Your task to perform on an android device: open app "LiveIn - Share Your Moment" Image 0: 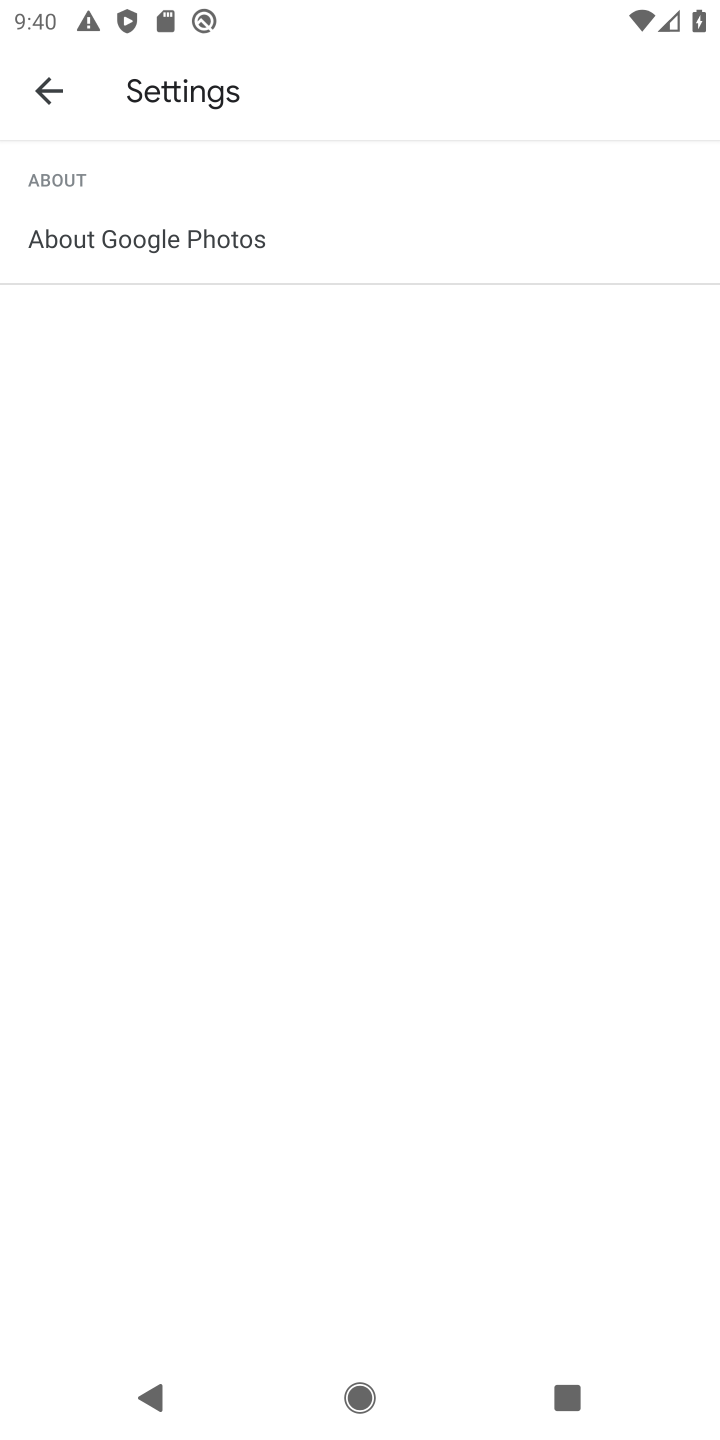
Step 0: press home button
Your task to perform on an android device: open app "LiveIn - Share Your Moment" Image 1: 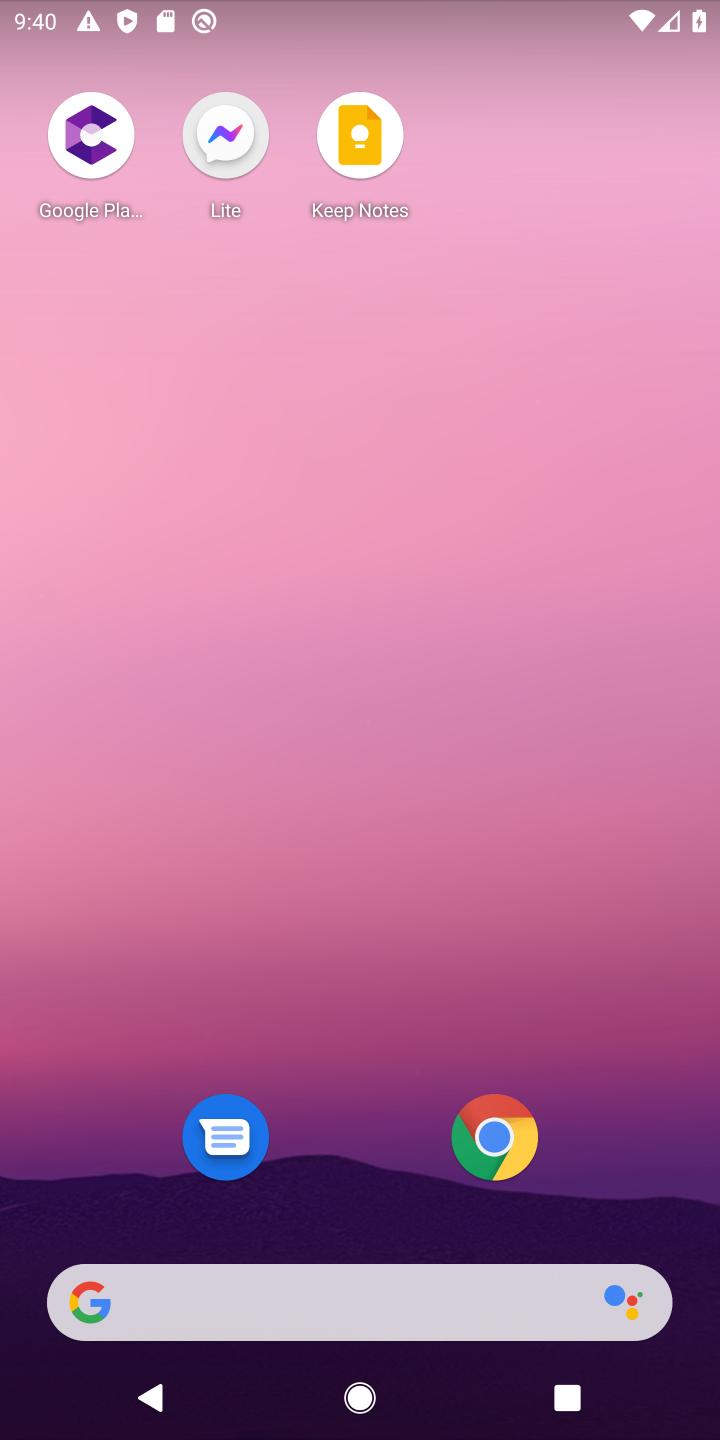
Step 1: drag from (605, 994) to (261, 88)
Your task to perform on an android device: open app "LiveIn - Share Your Moment" Image 2: 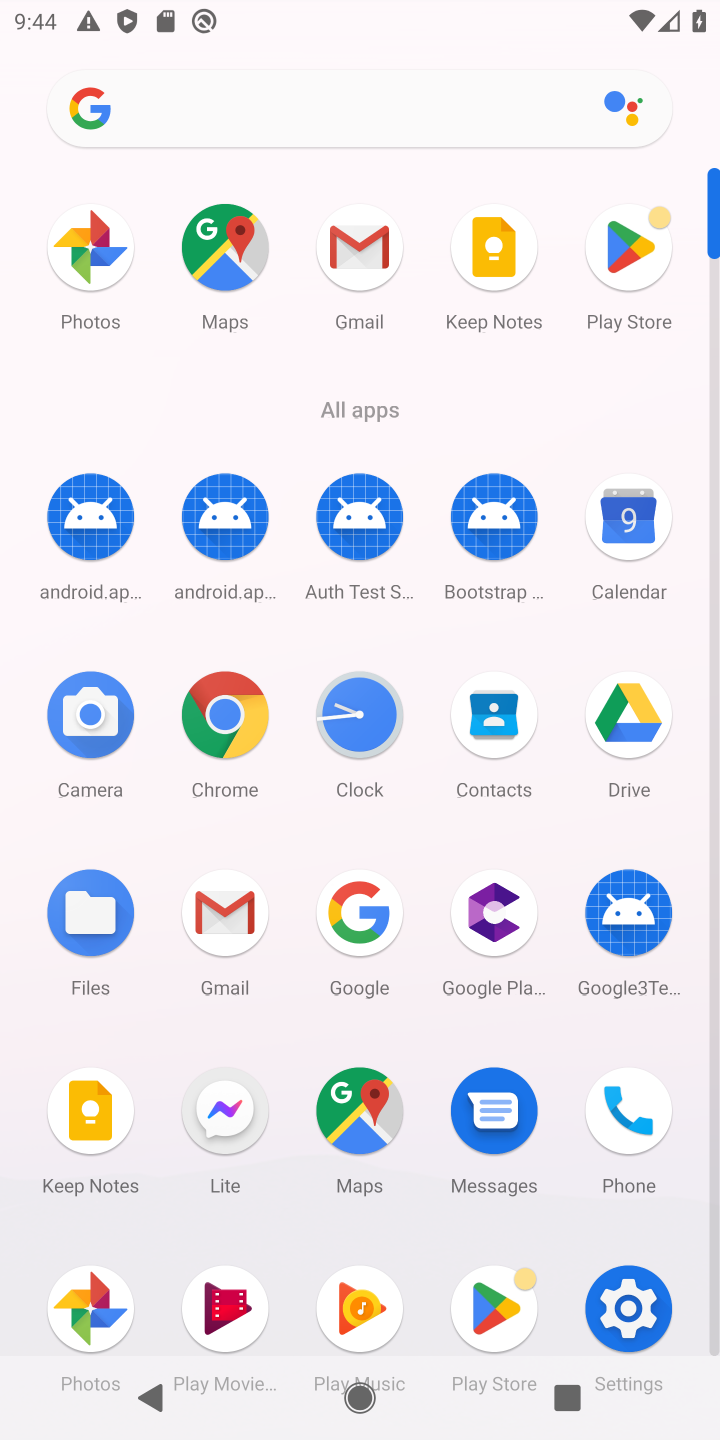
Step 2: click (616, 221)
Your task to perform on an android device: open app "LiveIn - Share Your Moment" Image 3: 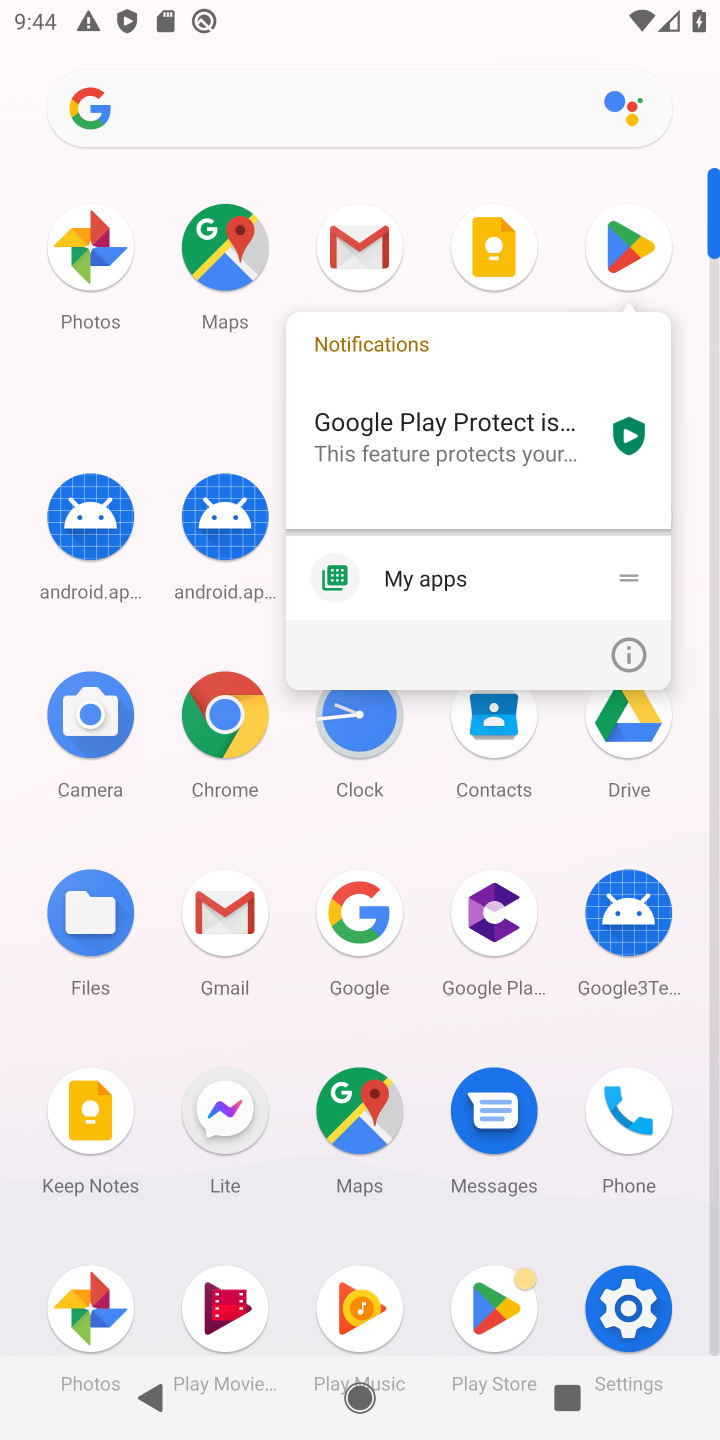
Step 3: click (616, 238)
Your task to perform on an android device: open app "LiveIn - Share Your Moment" Image 4: 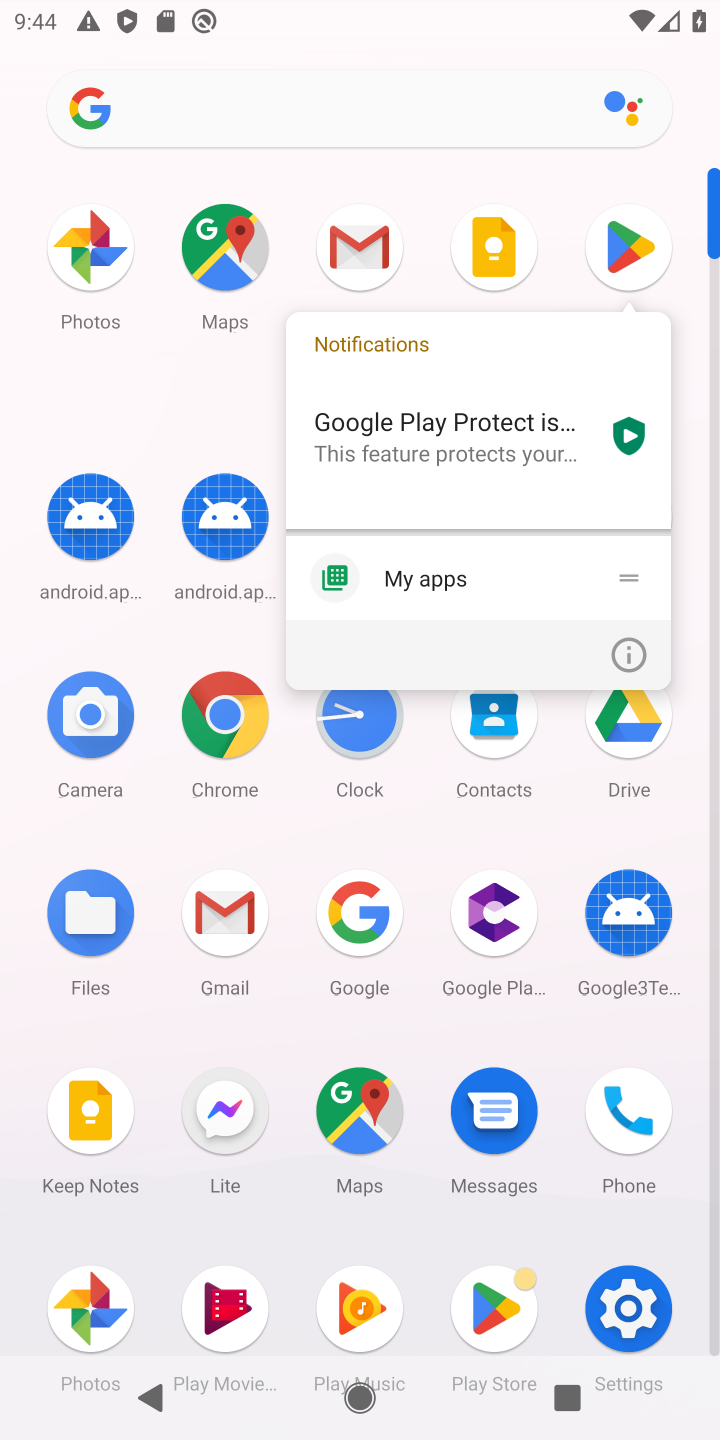
Step 4: click (614, 244)
Your task to perform on an android device: open app "LiveIn - Share Your Moment" Image 5: 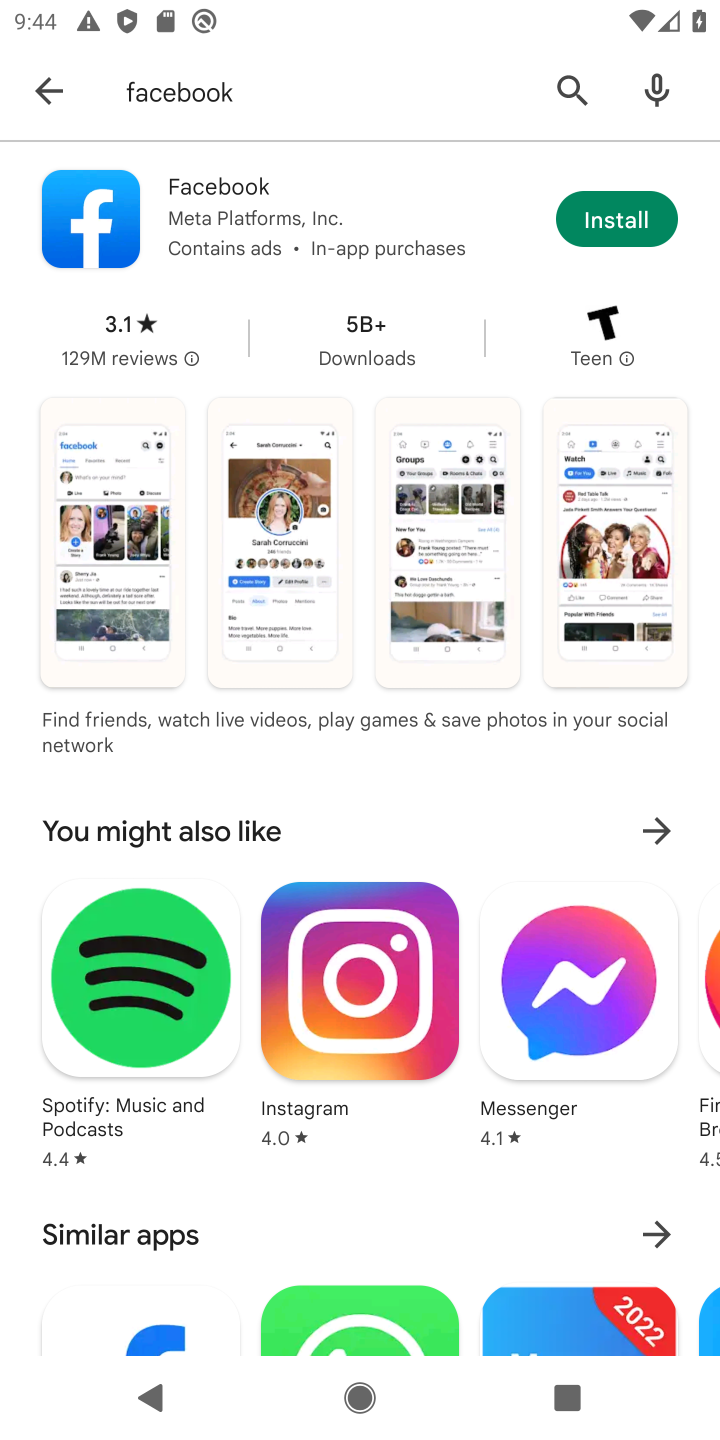
Step 5: press back button
Your task to perform on an android device: open app "LiveIn - Share Your Moment" Image 6: 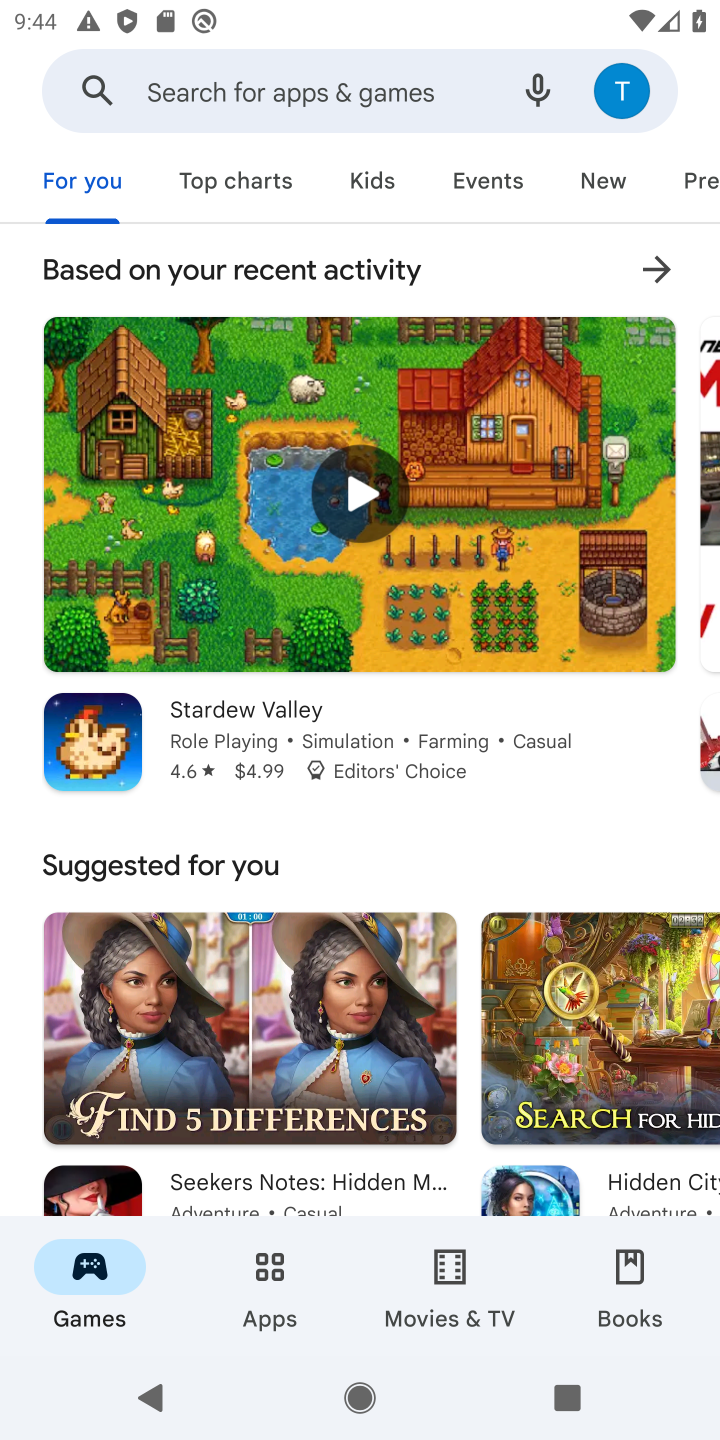
Step 6: click (186, 96)
Your task to perform on an android device: open app "LiveIn - Share Your Moment" Image 7: 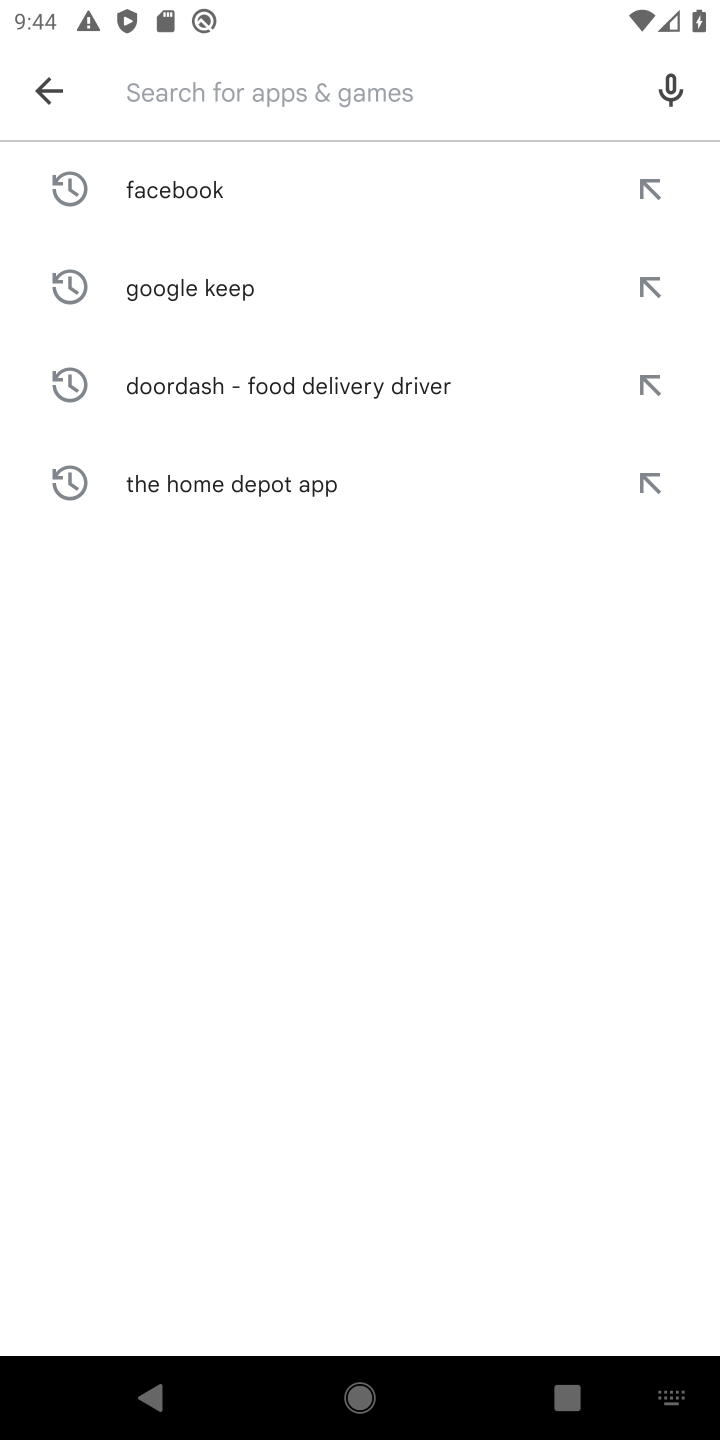
Step 7: type "LiveIn - Share Your Moment"
Your task to perform on an android device: open app "LiveIn - Share Your Moment" Image 8: 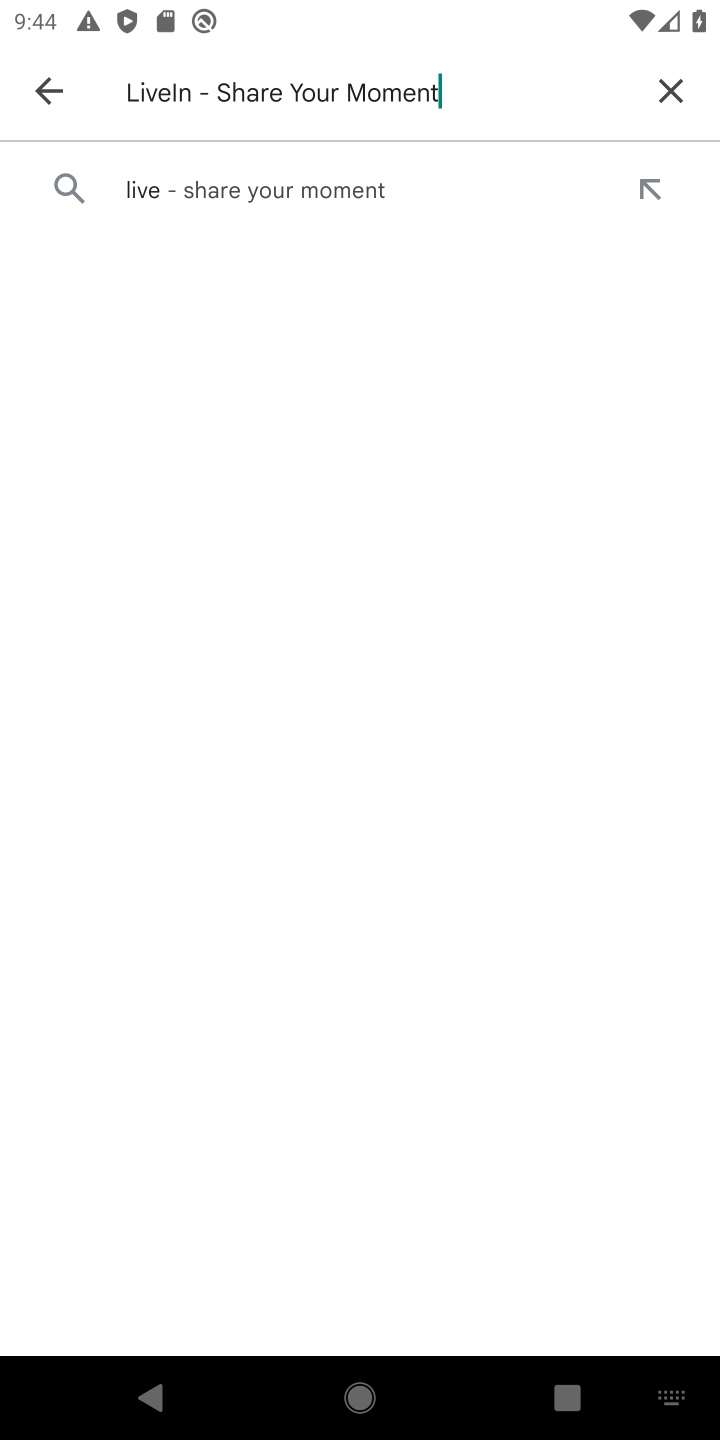
Step 8: click (299, 217)
Your task to perform on an android device: open app "LiveIn - Share Your Moment" Image 9: 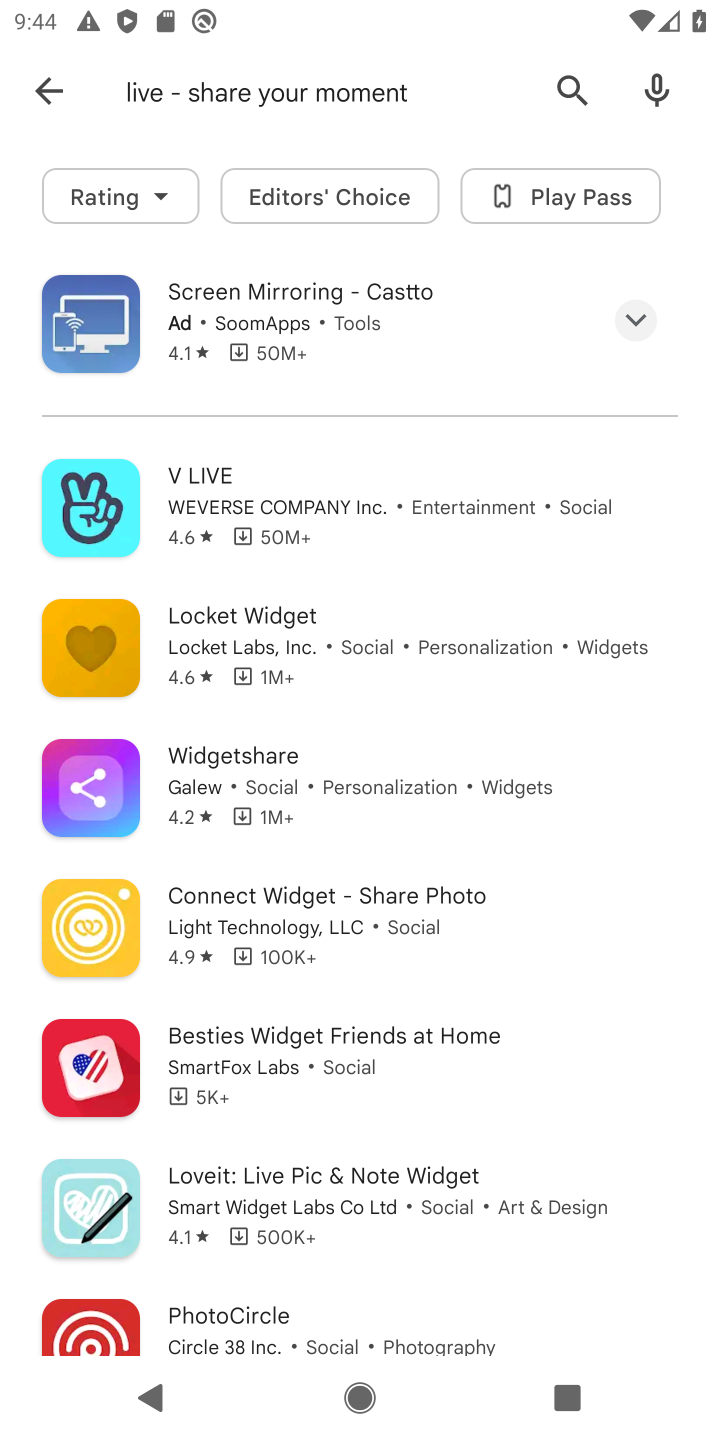
Step 9: task complete